Your task to perform on an android device: toggle translation in the chrome app Image 0: 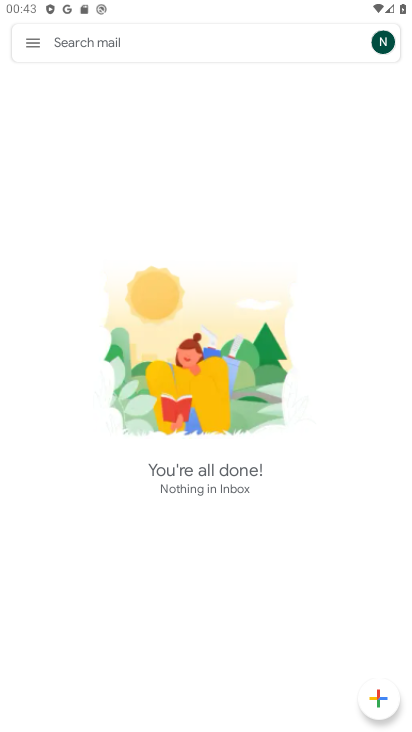
Step 0: press home button
Your task to perform on an android device: toggle translation in the chrome app Image 1: 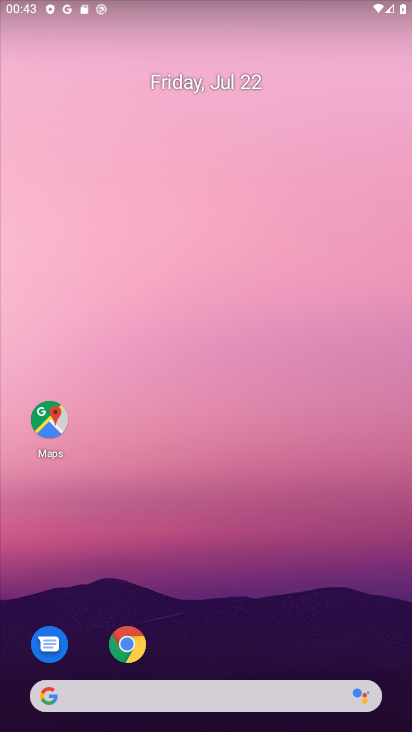
Step 1: click (124, 653)
Your task to perform on an android device: toggle translation in the chrome app Image 2: 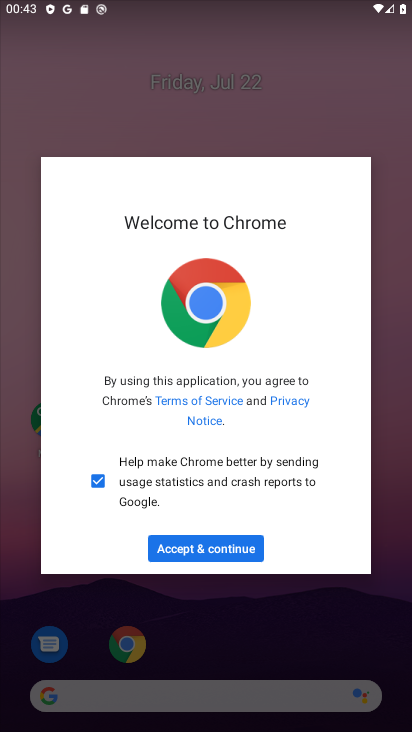
Step 2: click (209, 556)
Your task to perform on an android device: toggle translation in the chrome app Image 3: 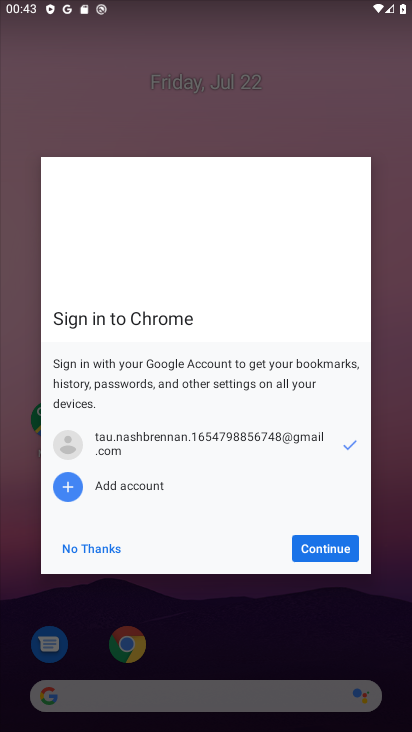
Step 3: click (338, 546)
Your task to perform on an android device: toggle translation in the chrome app Image 4: 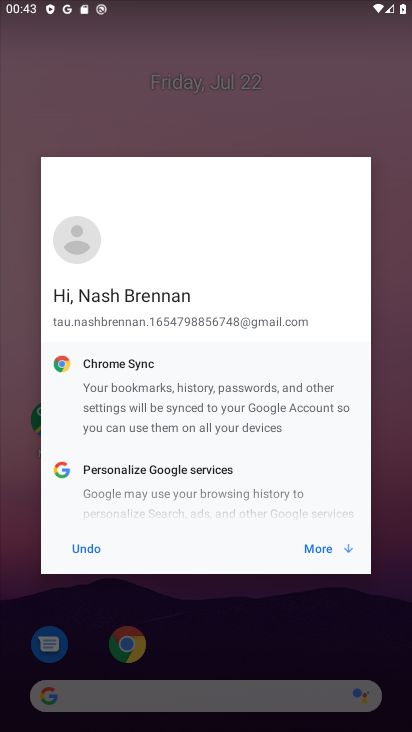
Step 4: click (338, 546)
Your task to perform on an android device: toggle translation in the chrome app Image 5: 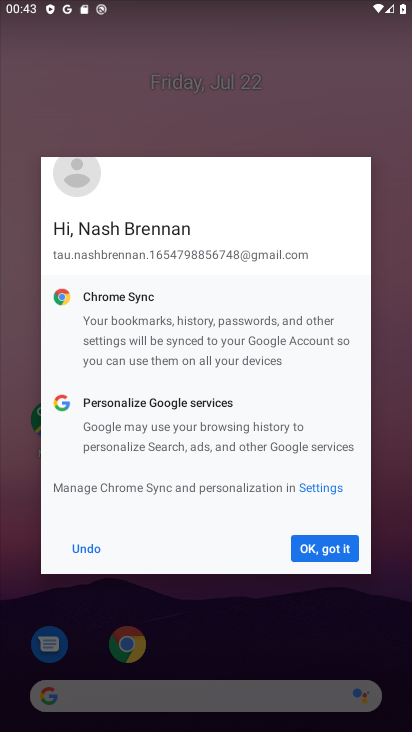
Step 5: click (338, 546)
Your task to perform on an android device: toggle translation in the chrome app Image 6: 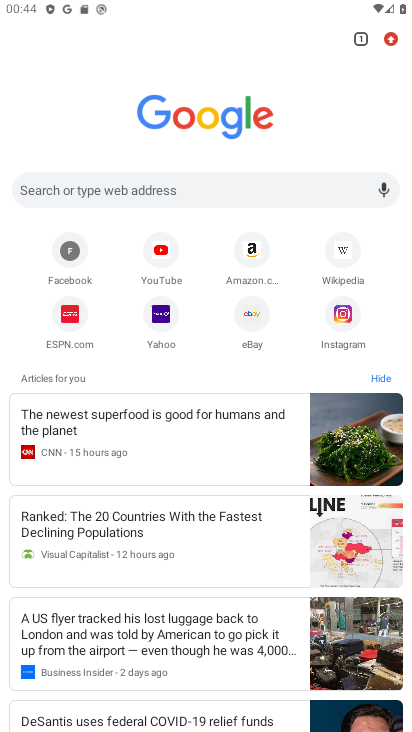
Step 6: click (387, 33)
Your task to perform on an android device: toggle translation in the chrome app Image 7: 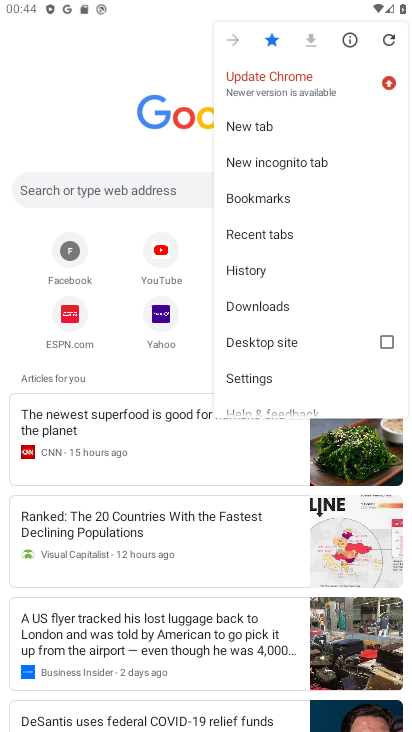
Step 7: click (248, 380)
Your task to perform on an android device: toggle translation in the chrome app Image 8: 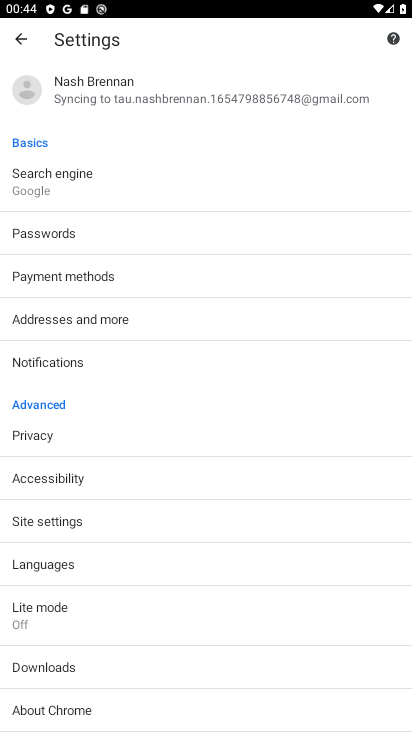
Step 8: click (108, 570)
Your task to perform on an android device: toggle translation in the chrome app Image 9: 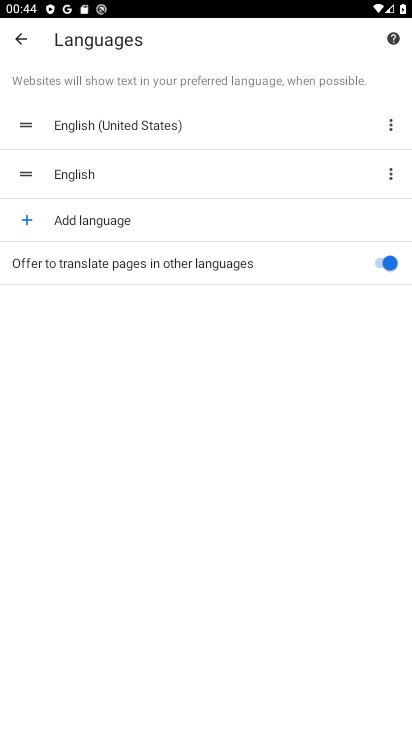
Step 9: click (385, 261)
Your task to perform on an android device: toggle translation in the chrome app Image 10: 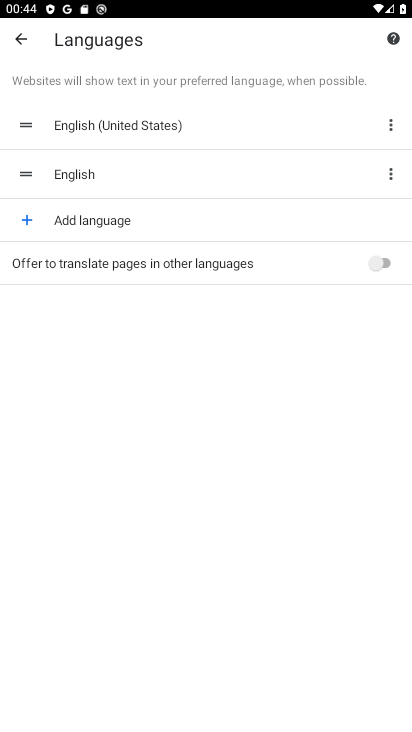
Step 10: task complete